Your task to perform on an android device: open a new tab in the chrome app Image 0: 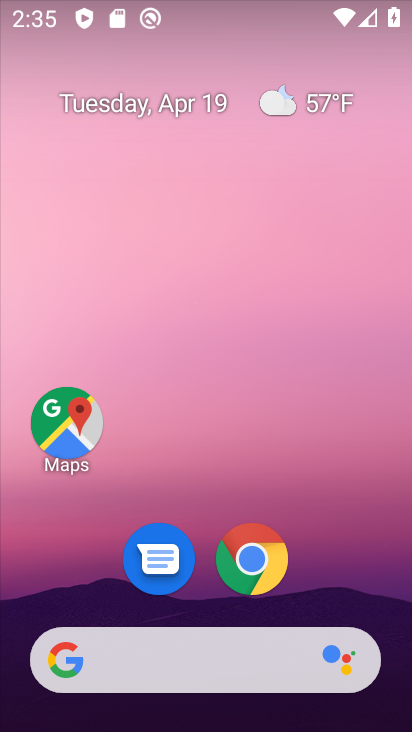
Step 0: click (245, 566)
Your task to perform on an android device: open a new tab in the chrome app Image 1: 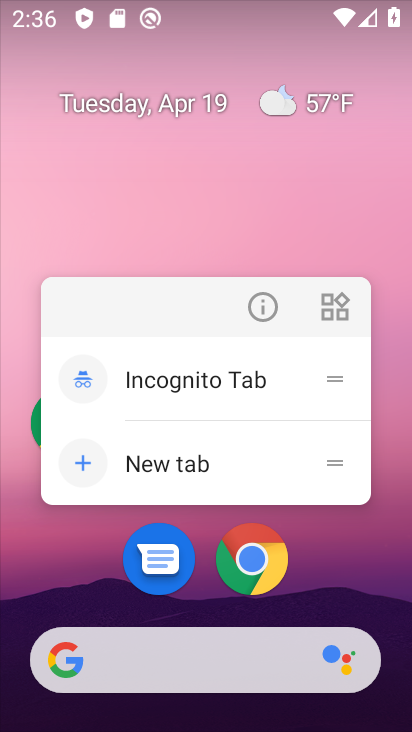
Step 1: click (261, 305)
Your task to perform on an android device: open a new tab in the chrome app Image 2: 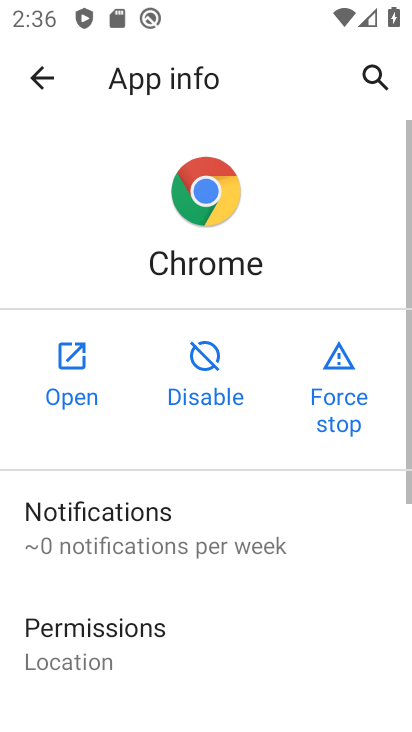
Step 2: click (73, 375)
Your task to perform on an android device: open a new tab in the chrome app Image 3: 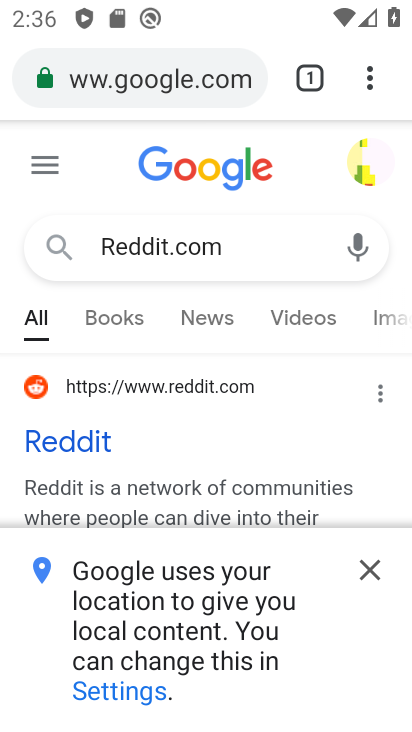
Step 3: click (310, 76)
Your task to perform on an android device: open a new tab in the chrome app Image 4: 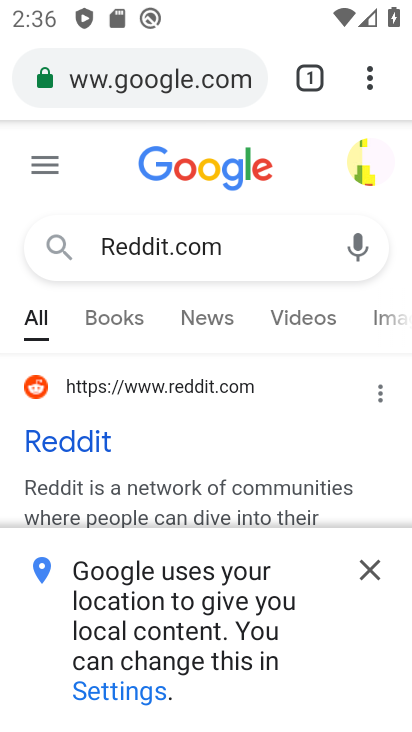
Step 4: click (318, 75)
Your task to perform on an android device: open a new tab in the chrome app Image 5: 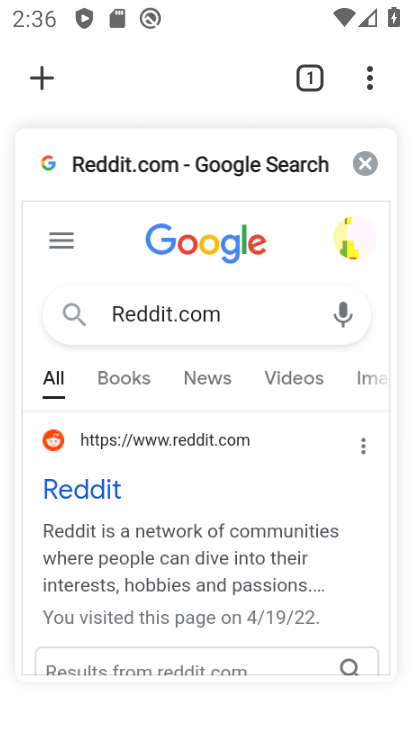
Step 5: click (40, 73)
Your task to perform on an android device: open a new tab in the chrome app Image 6: 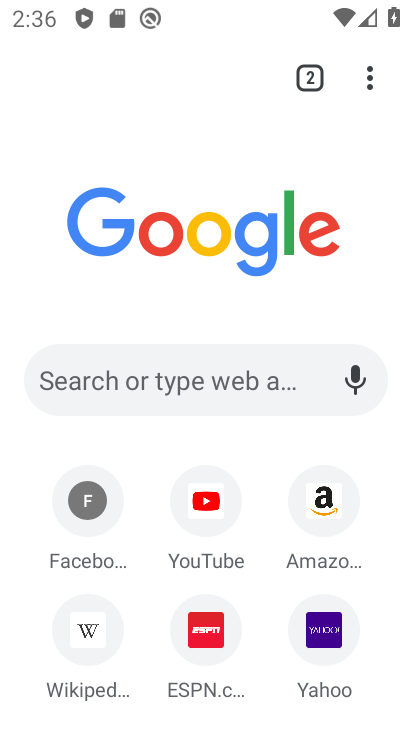
Step 6: task complete